Your task to perform on an android device: Open Youtube and go to the subscriptions tab Image 0: 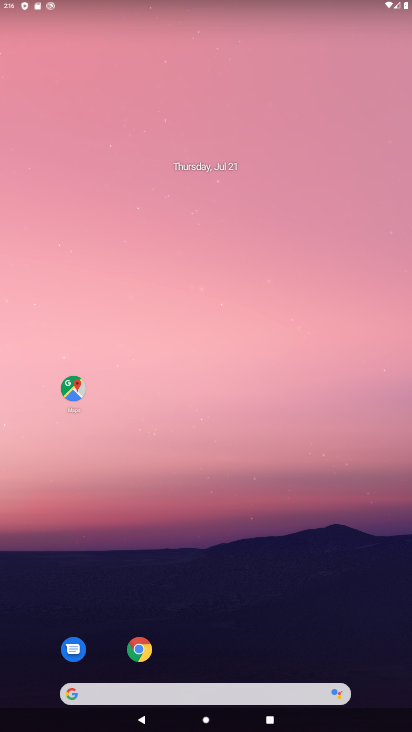
Step 0: drag from (230, 415) to (276, 167)
Your task to perform on an android device: Open Youtube and go to the subscriptions tab Image 1: 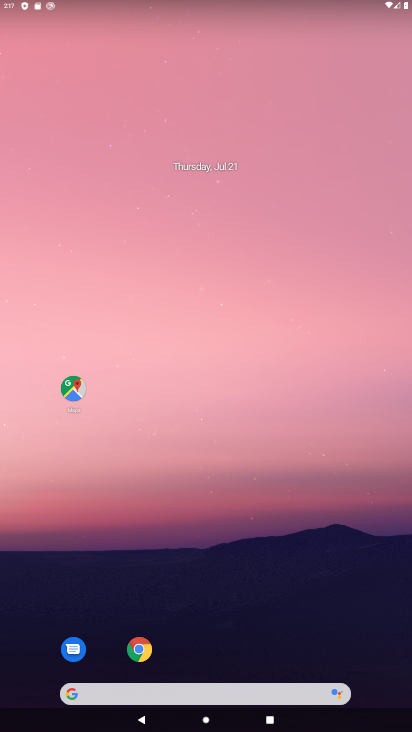
Step 1: drag from (223, 650) to (387, 151)
Your task to perform on an android device: Open Youtube and go to the subscriptions tab Image 2: 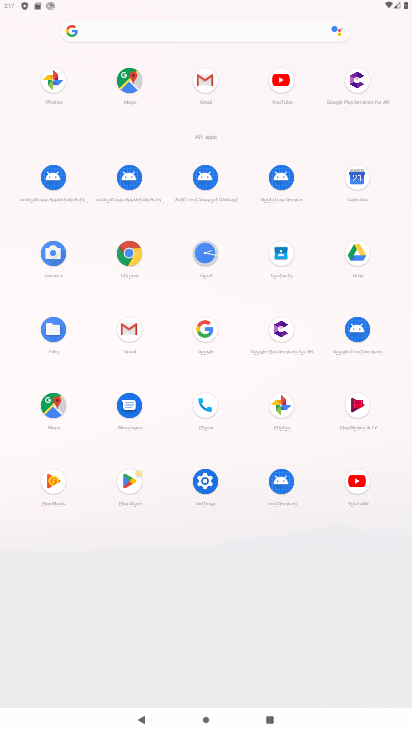
Step 2: click (370, 493)
Your task to perform on an android device: Open Youtube and go to the subscriptions tab Image 3: 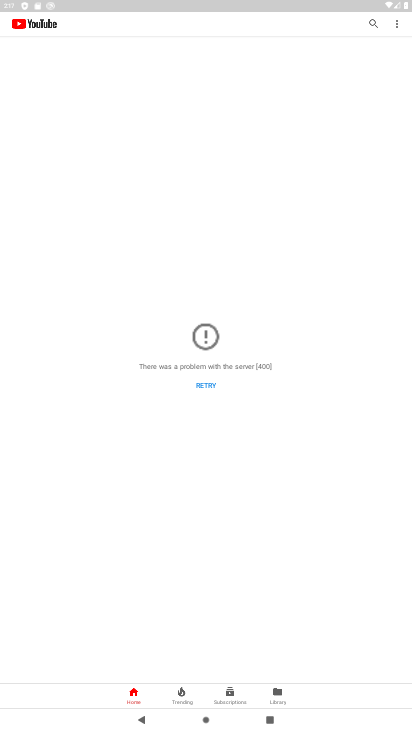
Step 3: click (216, 693)
Your task to perform on an android device: Open Youtube and go to the subscriptions tab Image 4: 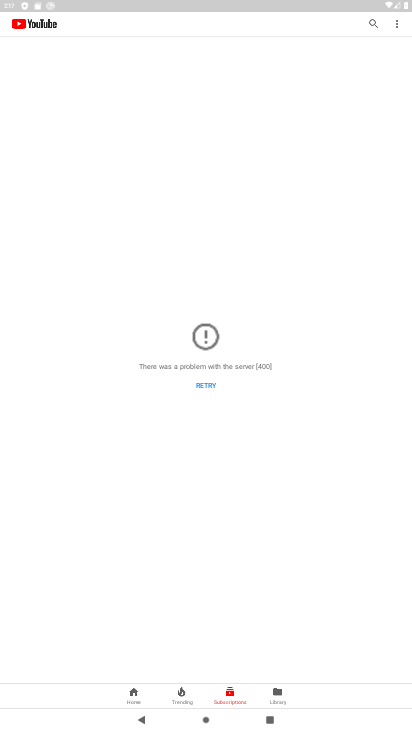
Step 4: task complete